Your task to perform on an android device: Go to Yahoo.com Image 0: 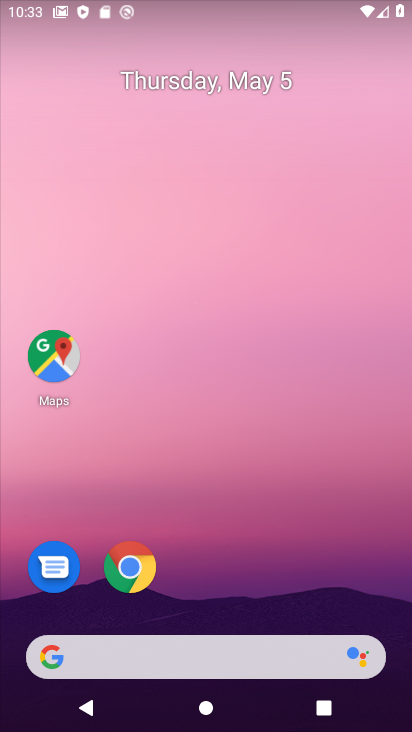
Step 0: click (139, 555)
Your task to perform on an android device: Go to Yahoo.com Image 1: 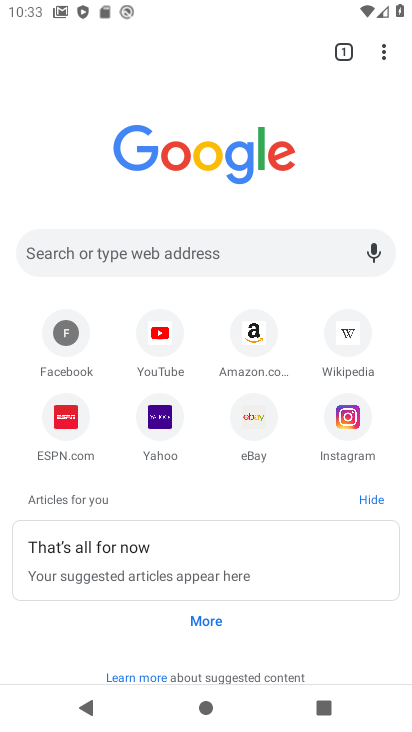
Step 1: click (154, 427)
Your task to perform on an android device: Go to Yahoo.com Image 2: 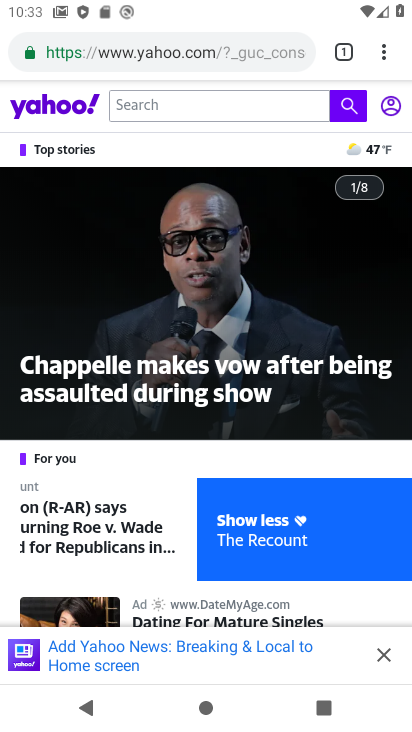
Step 2: task complete